Your task to perform on an android device: check data usage Image 0: 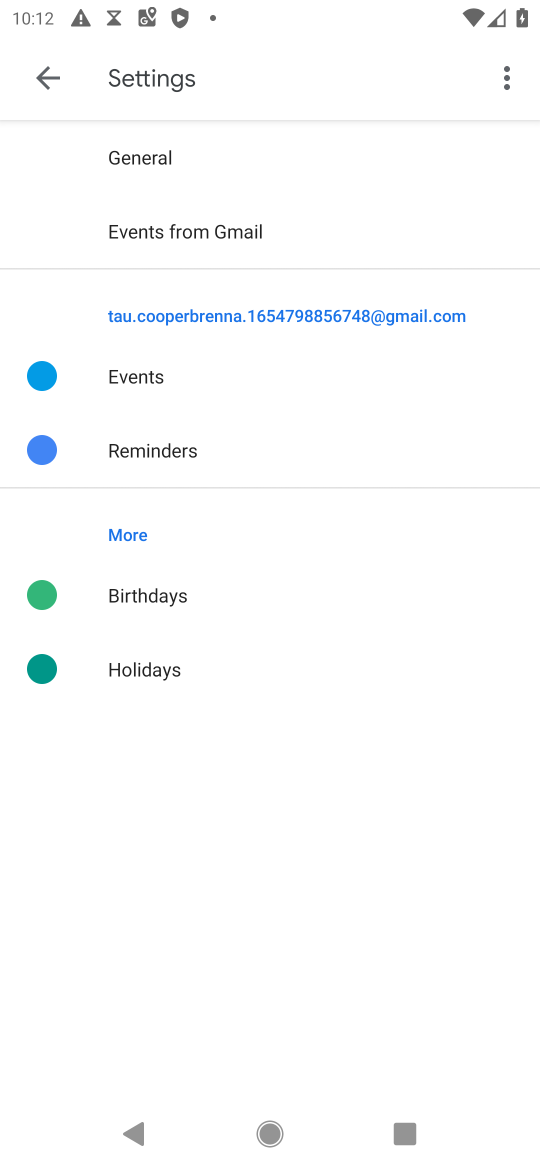
Step 0: press home button
Your task to perform on an android device: check data usage Image 1: 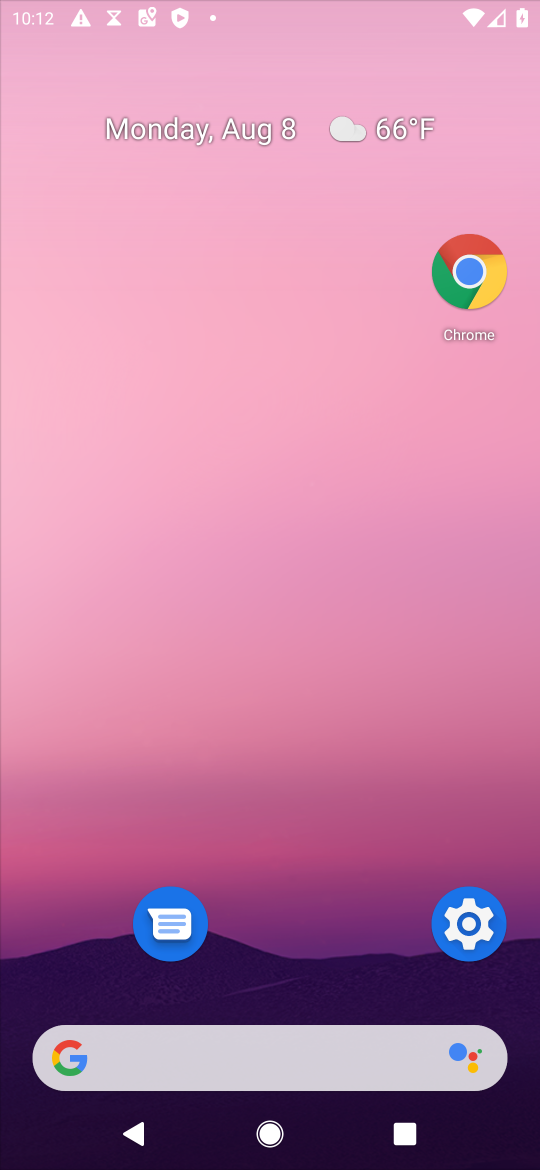
Step 1: drag from (496, 17) to (241, 1101)
Your task to perform on an android device: check data usage Image 2: 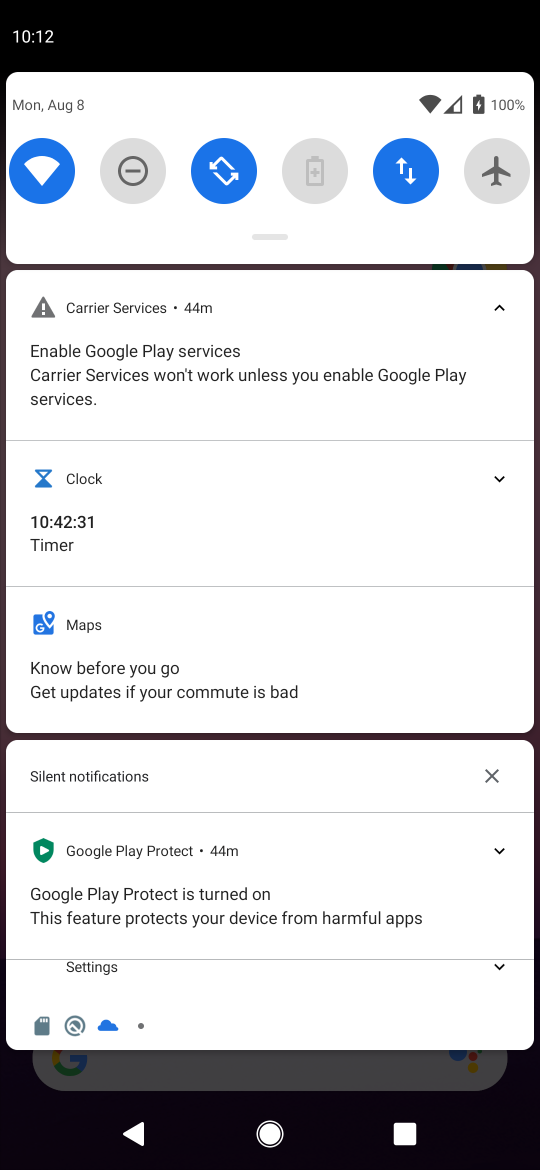
Step 2: click (423, 171)
Your task to perform on an android device: check data usage Image 3: 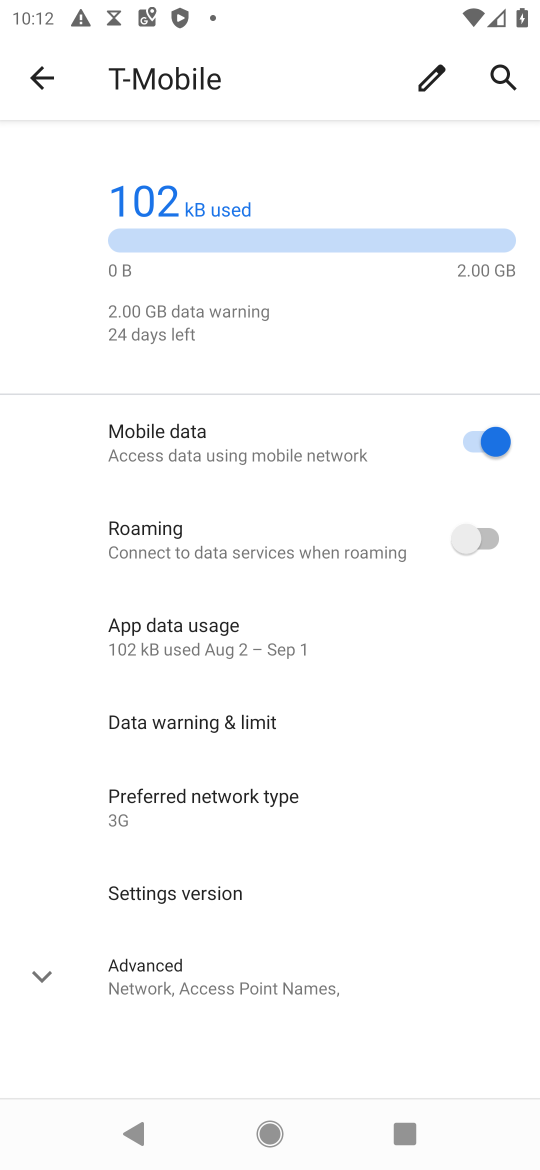
Step 3: press home button
Your task to perform on an android device: check data usage Image 4: 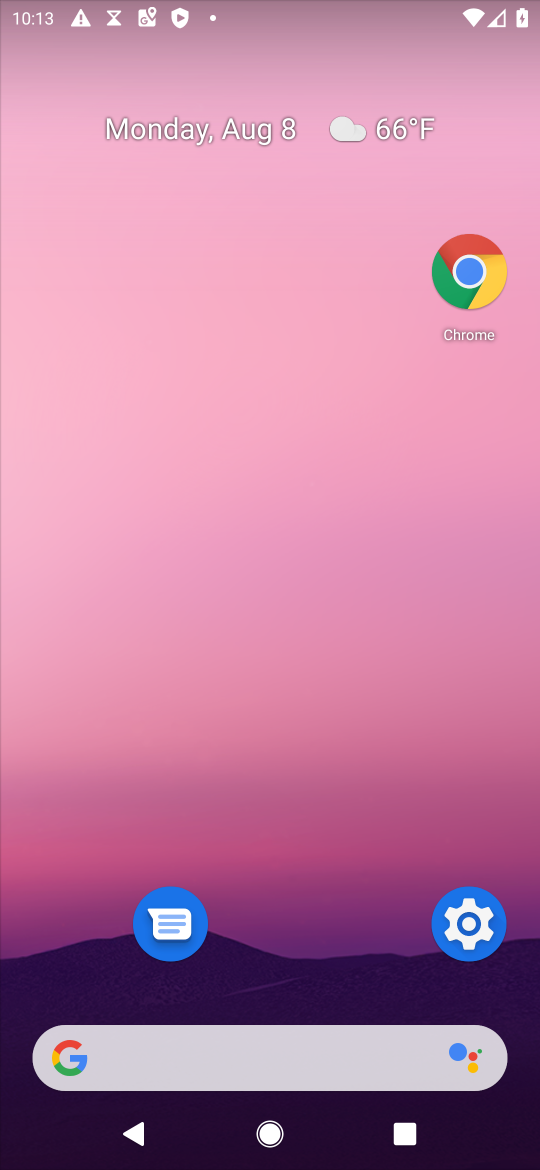
Step 4: click (425, 0)
Your task to perform on an android device: check data usage Image 5: 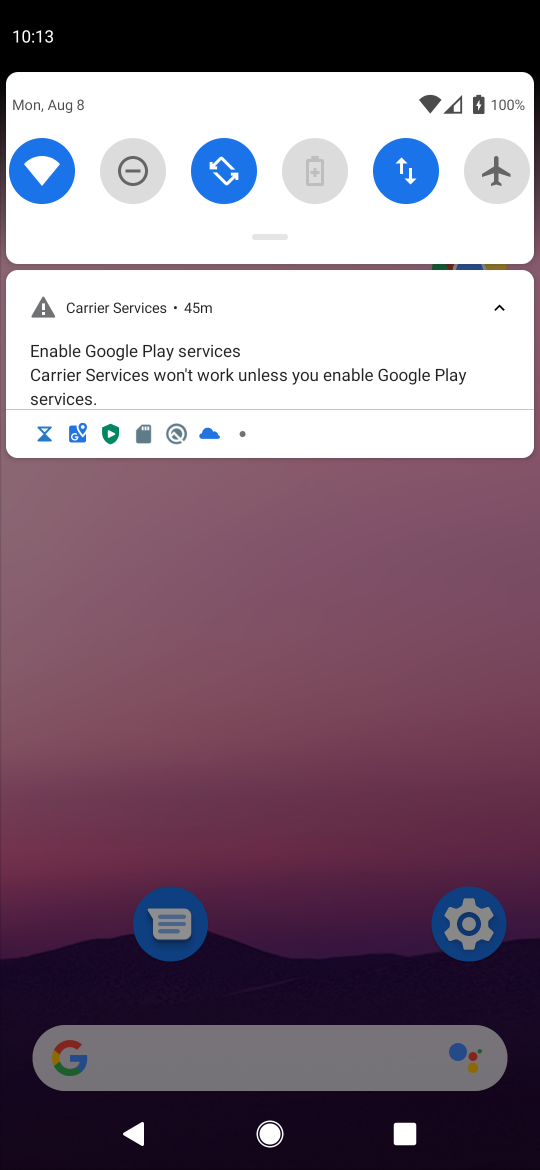
Step 5: drag from (443, 67) to (262, 1022)
Your task to perform on an android device: check data usage Image 6: 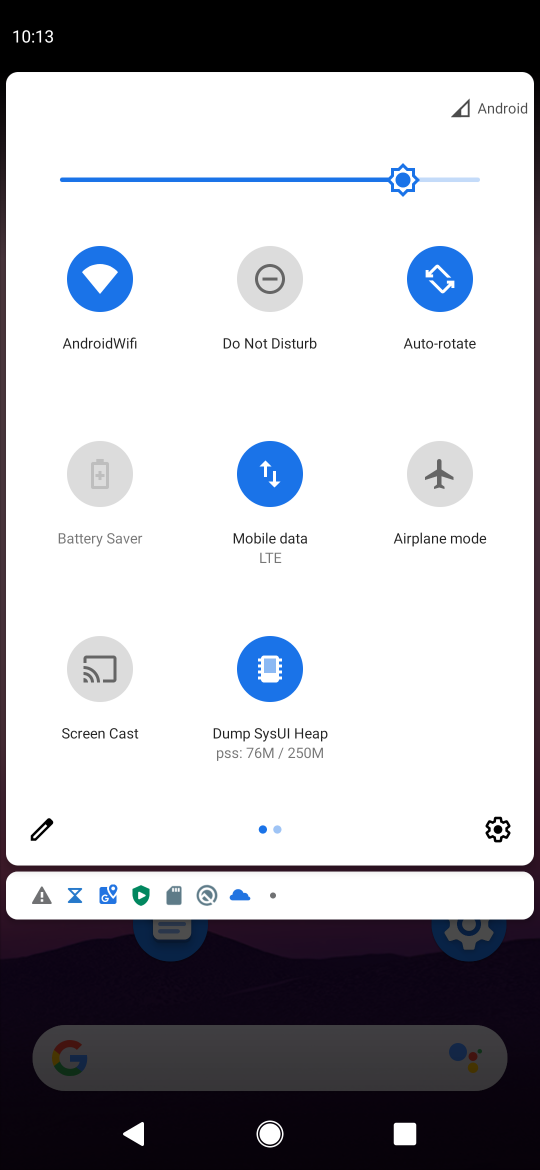
Step 6: click (261, 503)
Your task to perform on an android device: check data usage Image 7: 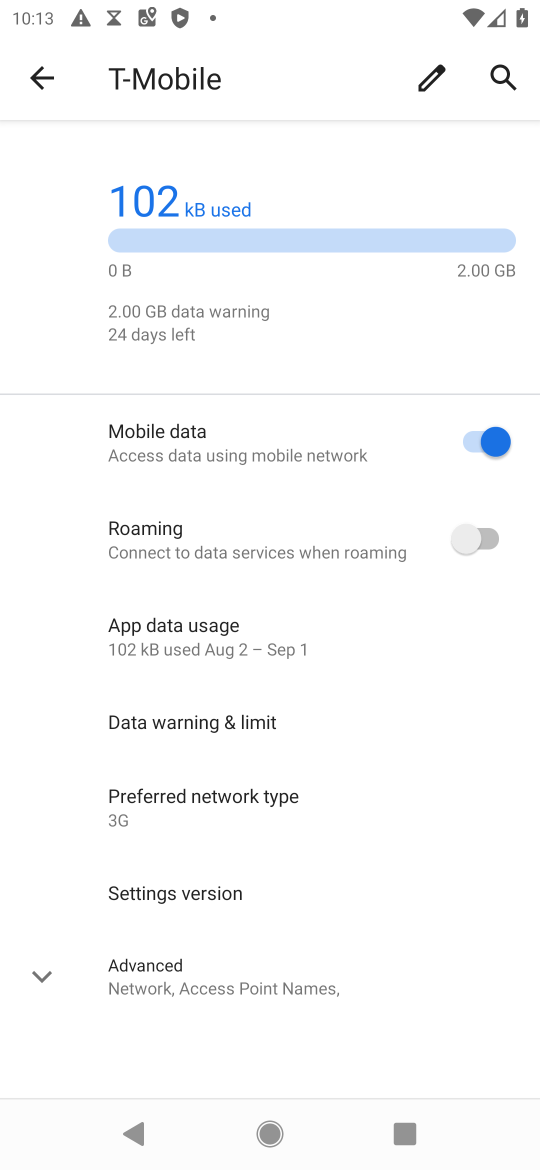
Step 7: task complete